Your task to perform on an android device: turn vacation reply on in the gmail app Image 0: 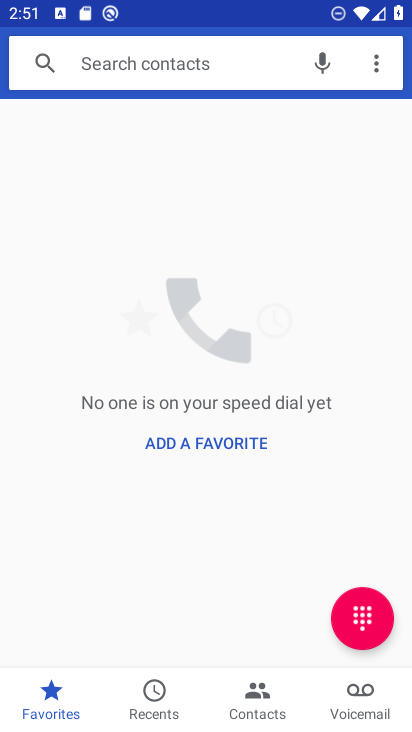
Step 0: press home button
Your task to perform on an android device: turn vacation reply on in the gmail app Image 1: 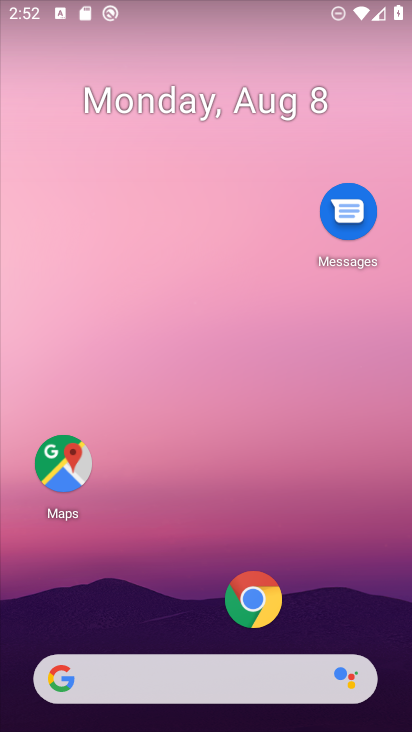
Step 1: drag from (127, 652) to (102, 39)
Your task to perform on an android device: turn vacation reply on in the gmail app Image 2: 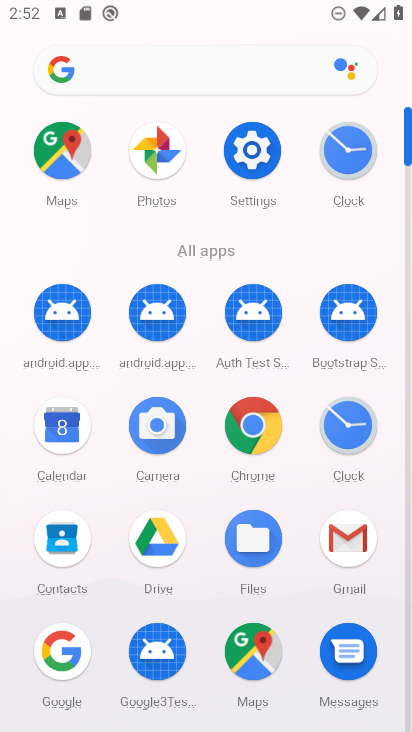
Step 2: click (357, 554)
Your task to perform on an android device: turn vacation reply on in the gmail app Image 3: 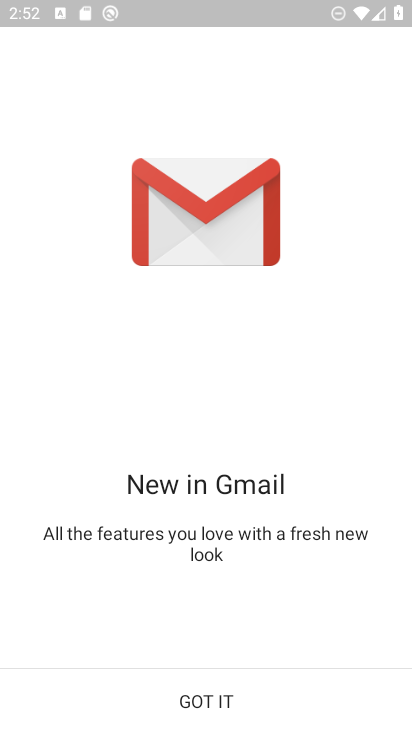
Step 3: click (173, 707)
Your task to perform on an android device: turn vacation reply on in the gmail app Image 4: 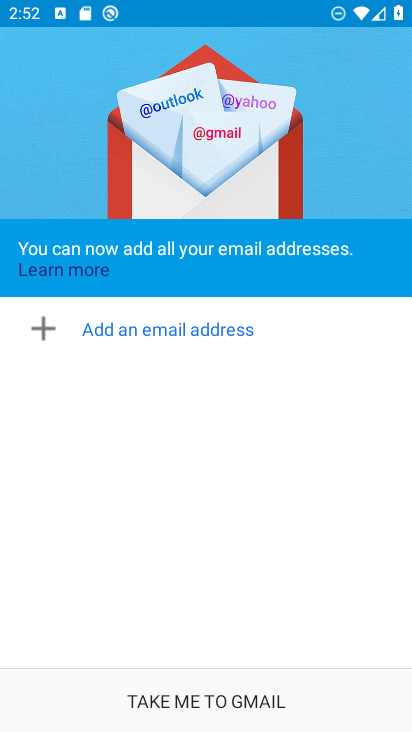
Step 4: task complete